Your task to perform on an android device: What's the news in Laos? Image 0: 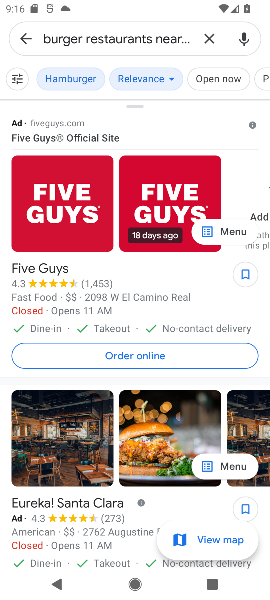
Step 0: press home button
Your task to perform on an android device: What's the news in Laos? Image 1: 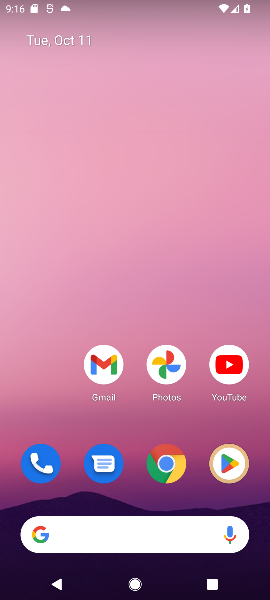
Step 1: drag from (112, 501) to (114, 177)
Your task to perform on an android device: What's the news in Laos? Image 2: 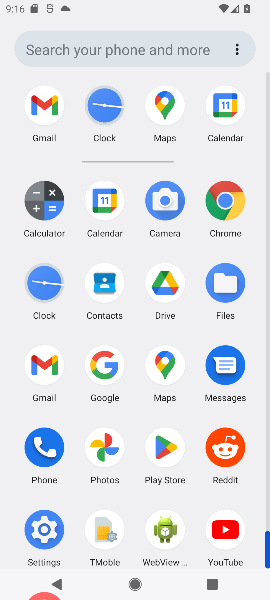
Step 2: click (106, 366)
Your task to perform on an android device: What's the news in Laos? Image 3: 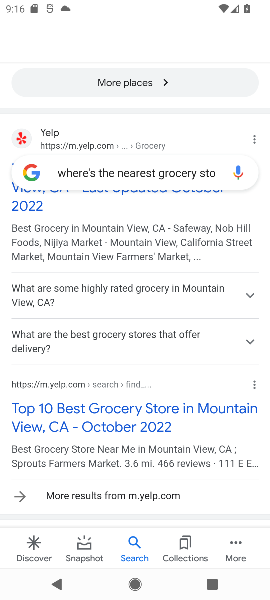
Step 3: click (142, 165)
Your task to perform on an android device: What's the news in Laos? Image 4: 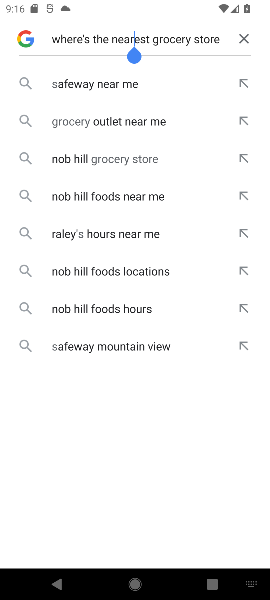
Step 4: click (246, 36)
Your task to perform on an android device: What's the news in Laos? Image 5: 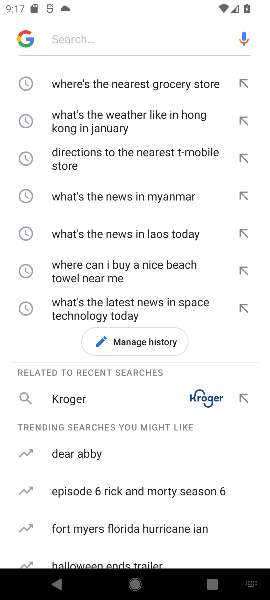
Step 5: click (117, 28)
Your task to perform on an android device: What's the news in Laos? Image 6: 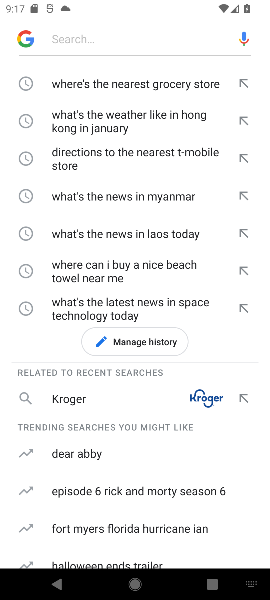
Step 6: type "What's the news in Laos? "
Your task to perform on an android device: What's the news in Laos? Image 7: 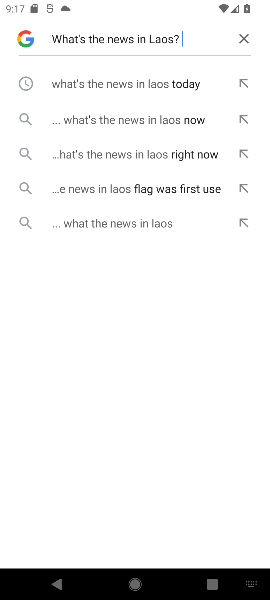
Step 7: click (149, 84)
Your task to perform on an android device: What's the news in Laos? Image 8: 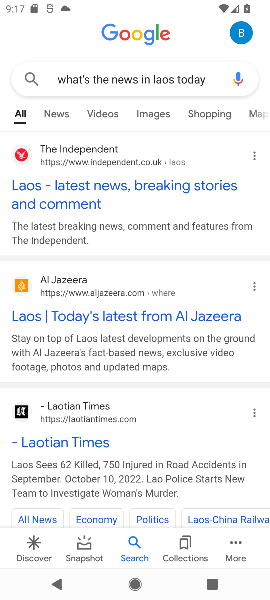
Step 8: click (120, 184)
Your task to perform on an android device: What's the news in Laos? Image 9: 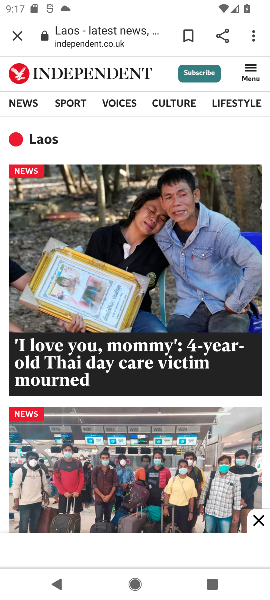
Step 9: drag from (110, 462) to (112, 275)
Your task to perform on an android device: What's the news in Laos? Image 10: 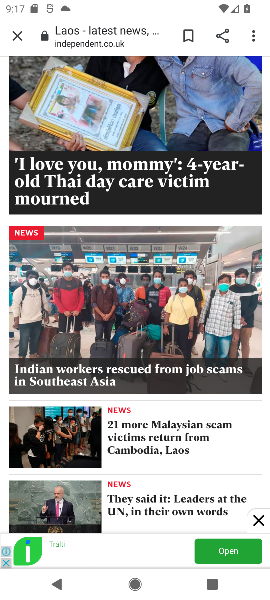
Step 10: drag from (132, 496) to (125, 286)
Your task to perform on an android device: What's the news in Laos? Image 11: 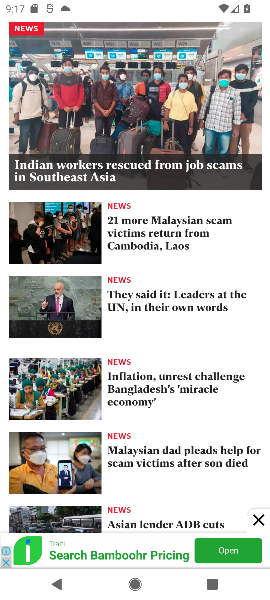
Step 11: drag from (127, 487) to (112, 178)
Your task to perform on an android device: What's the news in Laos? Image 12: 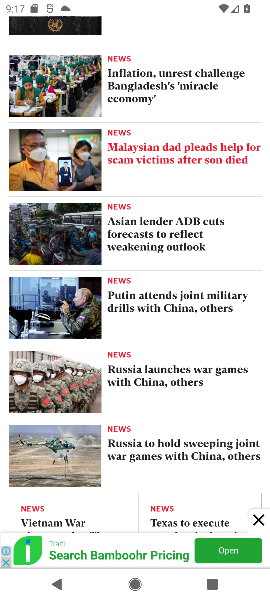
Step 12: click (259, 516)
Your task to perform on an android device: What's the news in Laos? Image 13: 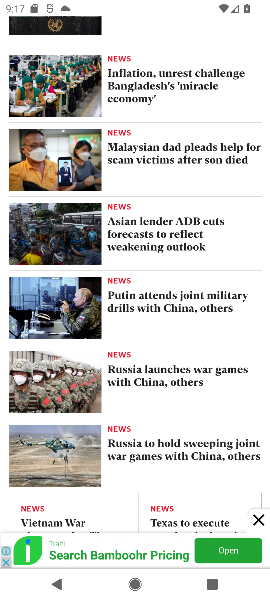
Step 13: task complete